Your task to perform on an android device: turn on airplane mode Image 0: 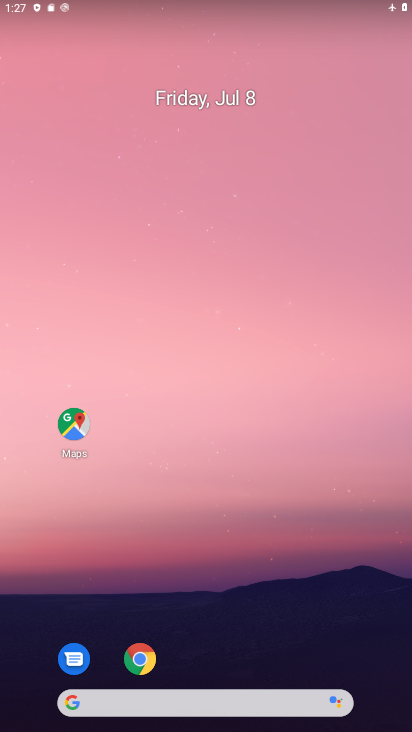
Step 0: drag from (333, 3) to (324, 727)
Your task to perform on an android device: turn on airplane mode Image 1: 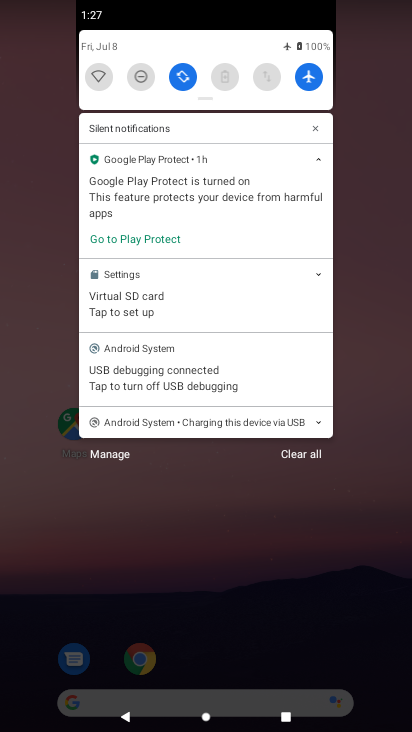
Step 1: task complete